Your task to perform on an android device: What's on my calendar tomorrow? Image 0: 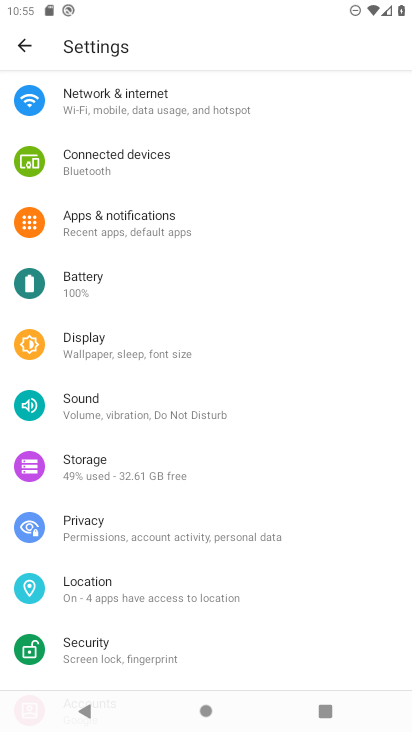
Step 0: press home button
Your task to perform on an android device: What's on my calendar tomorrow? Image 1: 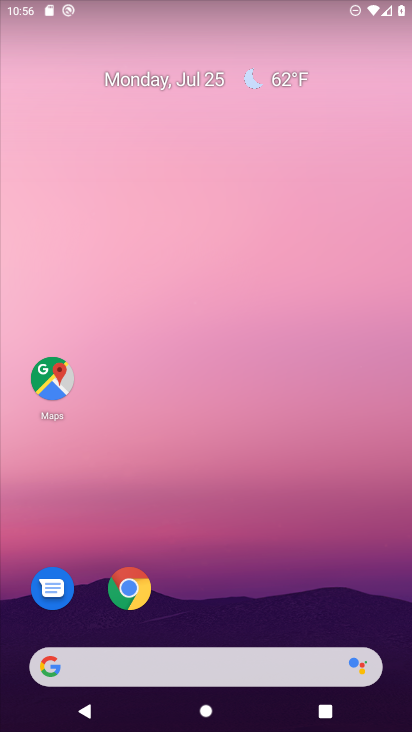
Step 1: drag from (20, 615) to (231, 135)
Your task to perform on an android device: What's on my calendar tomorrow? Image 2: 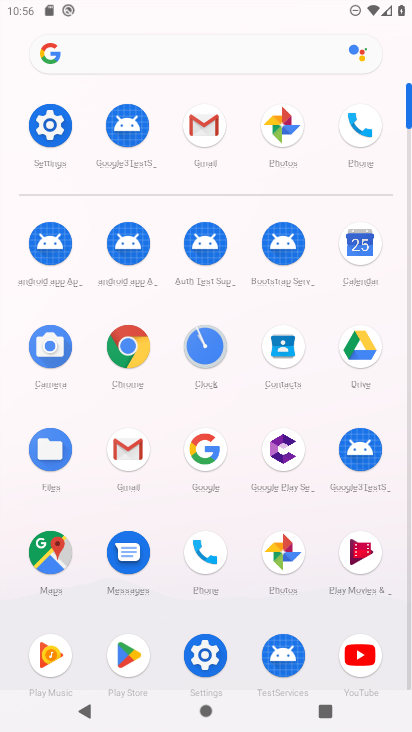
Step 2: click (356, 252)
Your task to perform on an android device: What's on my calendar tomorrow? Image 3: 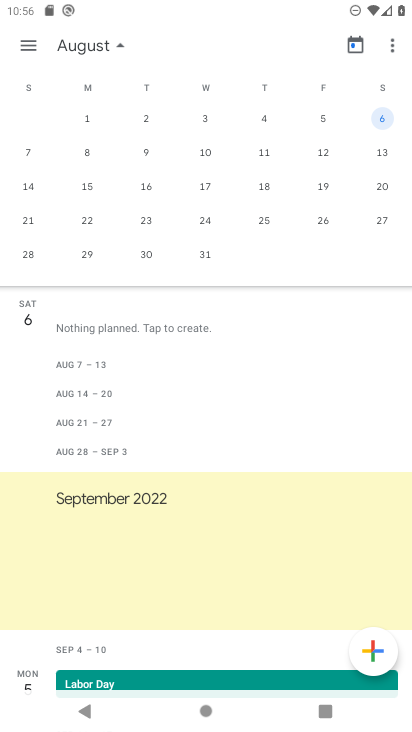
Step 3: drag from (42, 169) to (411, 362)
Your task to perform on an android device: What's on my calendar tomorrow? Image 4: 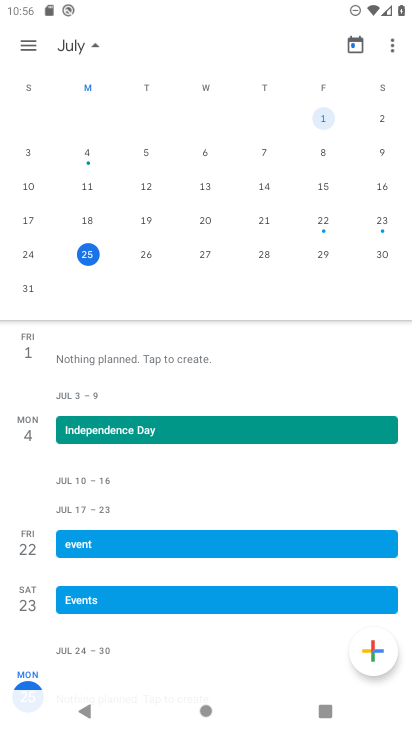
Step 4: click (384, 249)
Your task to perform on an android device: What's on my calendar tomorrow? Image 5: 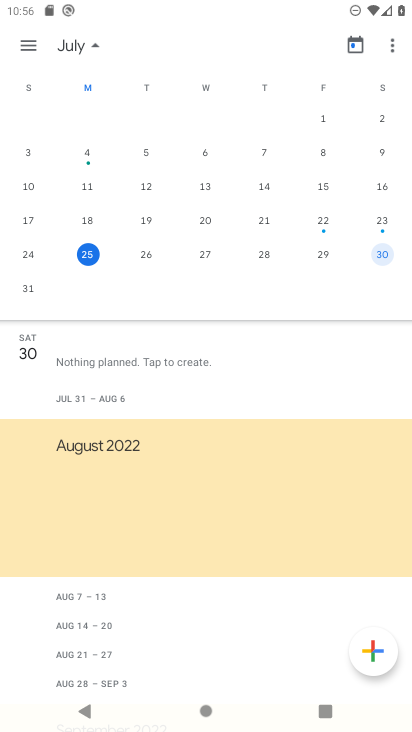
Step 5: click (34, 291)
Your task to perform on an android device: What's on my calendar tomorrow? Image 6: 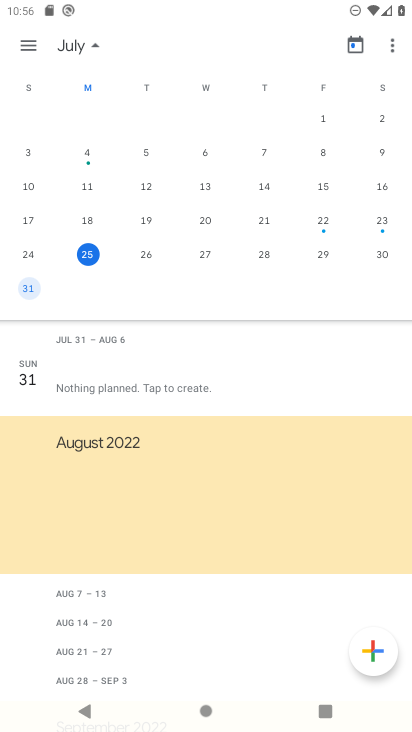
Step 6: task complete